Your task to perform on an android device: snooze an email in the gmail app Image 0: 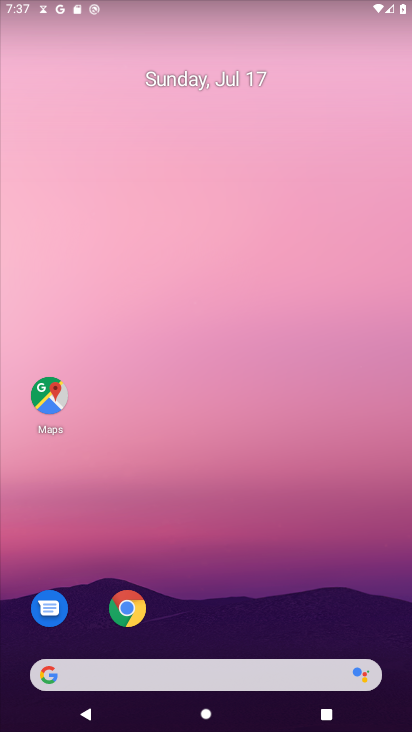
Step 0: drag from (157, 631) to (205, 271)
Your task to perform on an android device: snooze an email in the gmail app Image 1: 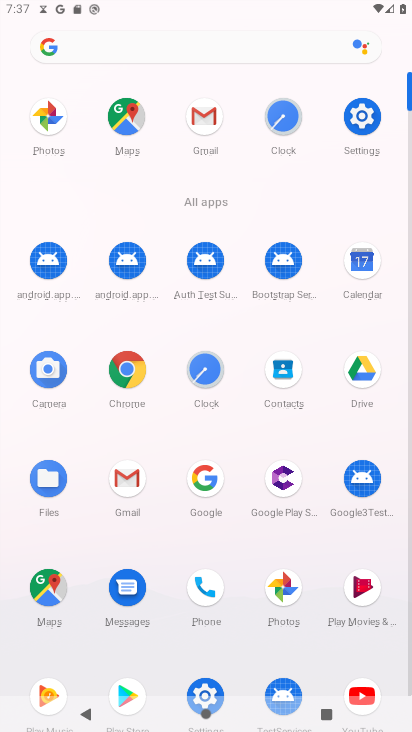
Step 1: click (208, 130)
Your task to perform on an android device: snooze an email in the gmail app Image 2: 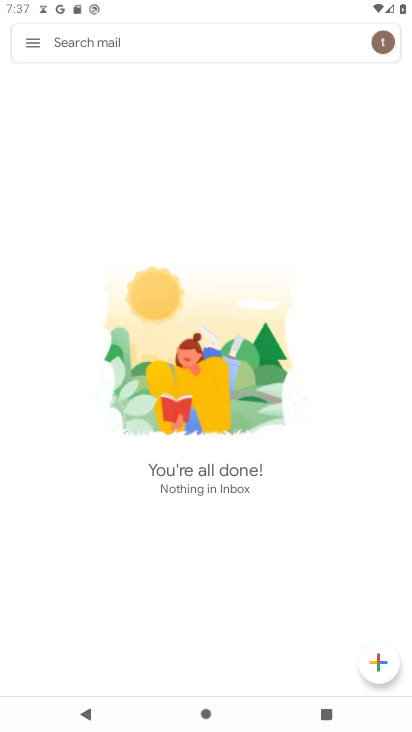
Step 2: task complete